Your task to perform on an android device: see sites visited before in the chrome app Image 0: 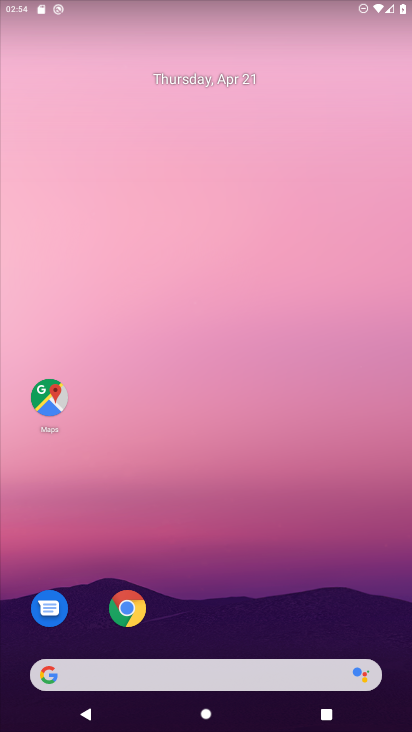
Step 0: click (225, 185)
Your task to perform on an android device: see sites visited before in the chrome app Image 1: 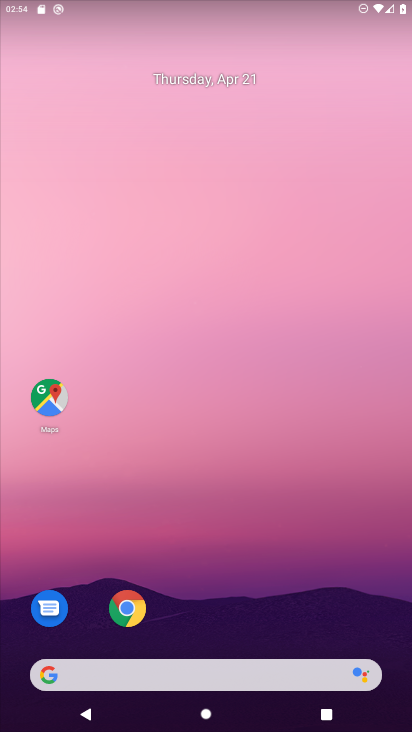
Step 1: drag from (205, 384) to (221, 152)
Your task to perform on an android device: see sites visited before in the chrome app Image 2: 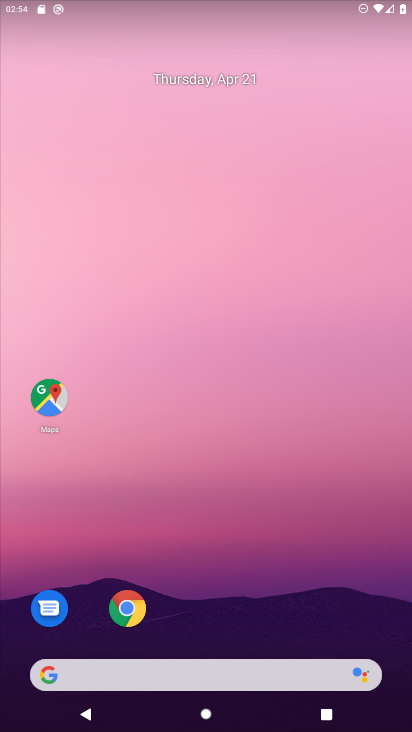
Step 2: drag from (223, 613) to (245, 92)
Your task to perform on an android device: see sites visited before in the chrome app Image 3: 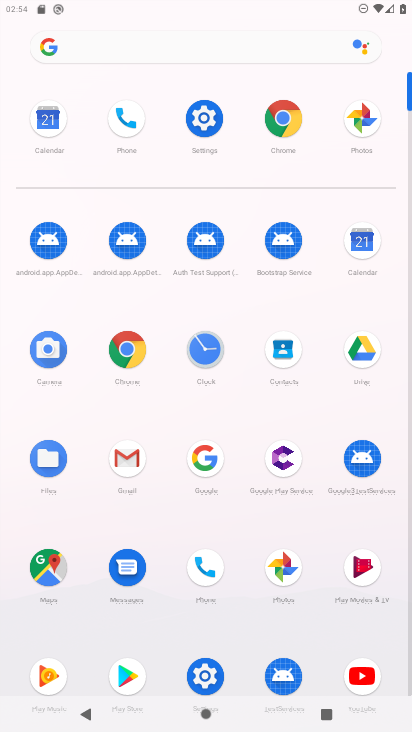
Step 3: click (286, 112)
Your task to perform on an android device: see sites visited before in the chrome app Image 4: 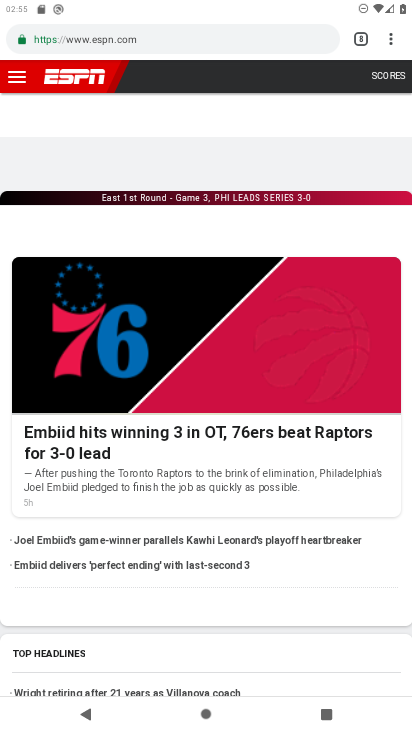
Step 4: click (383, 46)
Your task to perform on an android device: see sites visited before in the chrome app Image 5: 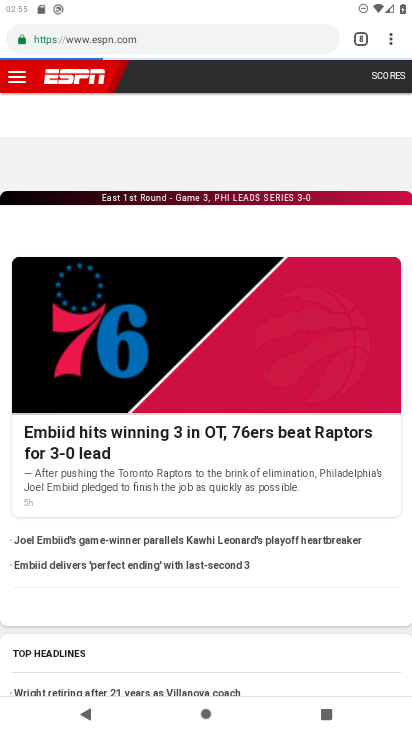
Step 5: click (383, 46)
Your task to perform on an android device: see sites visited before in the chrome app Image 6: 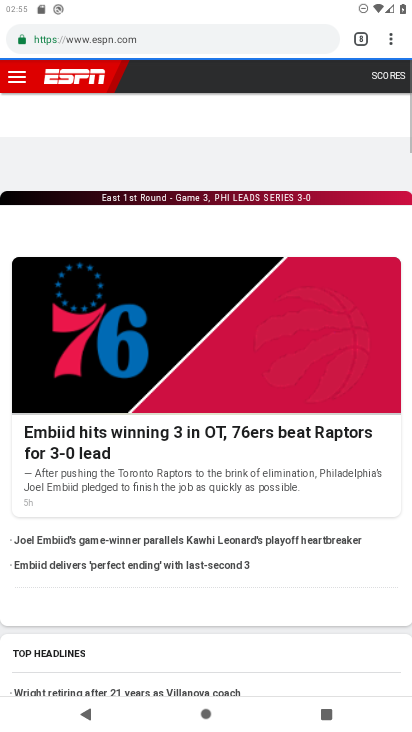
Step 6: click (383, 46)
Your task to perform on an android device: see sites visited before in the chrome app Image 7: 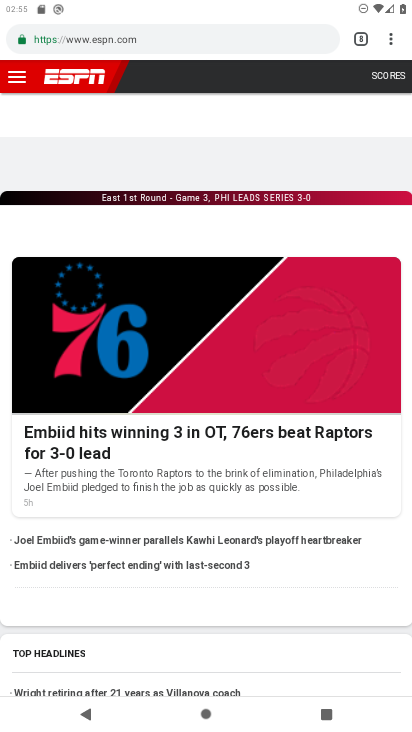
Step 7: click (375, 38)
Your task to perform on an android device: see sites visited before in the chrome app Image 8: 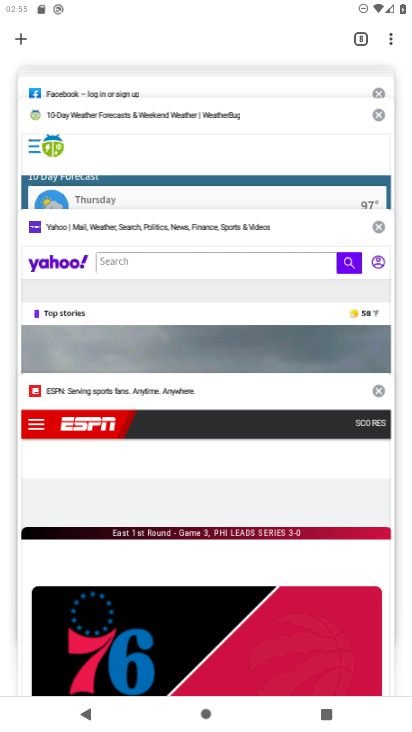
Step 8: click (263, 481)
Your task to perform on an android device: see sites visited before in the chrome app Image 9: 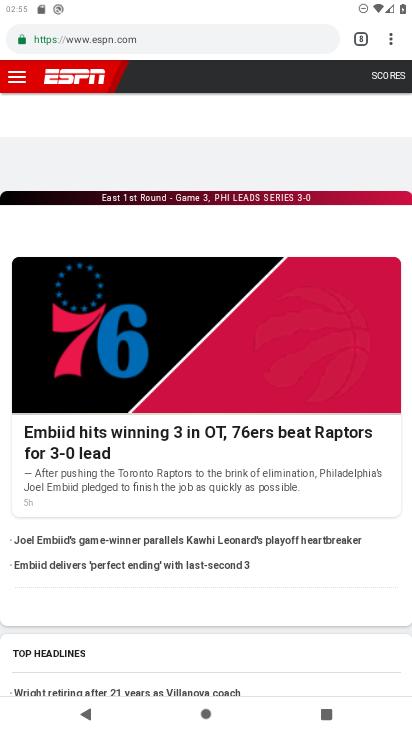
Step 9: click (381, 35)
Your task to perform on an android device: see sites visited before in the chrome app Image 10: 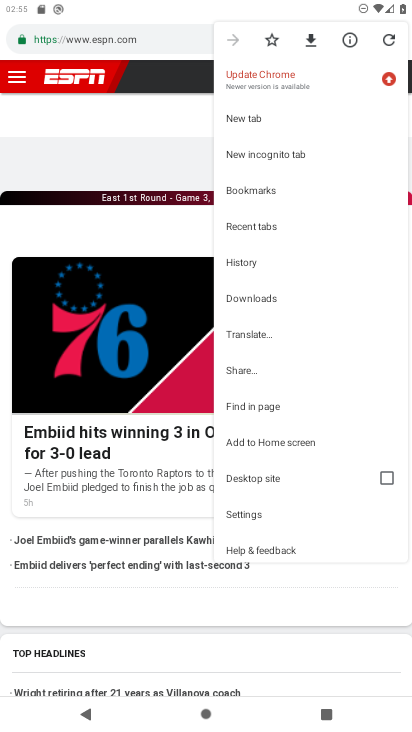
Step 10: click (255, 254)
Your task to perform on an android device: see sites visited before in the chrome app Image 11: 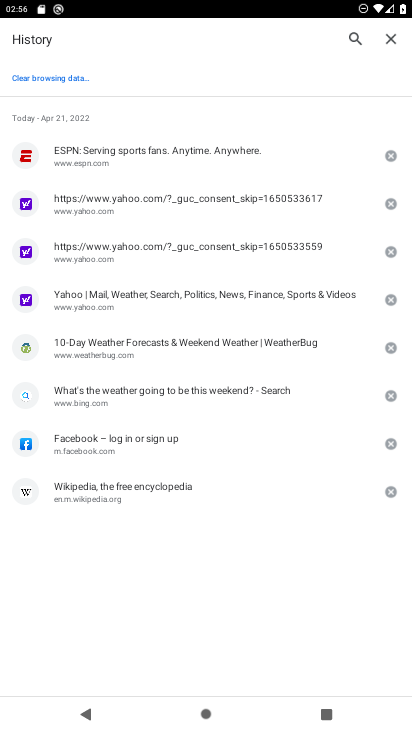
Step 11: task complete